Your task to perform on an android device: What is the news today? Image 0: 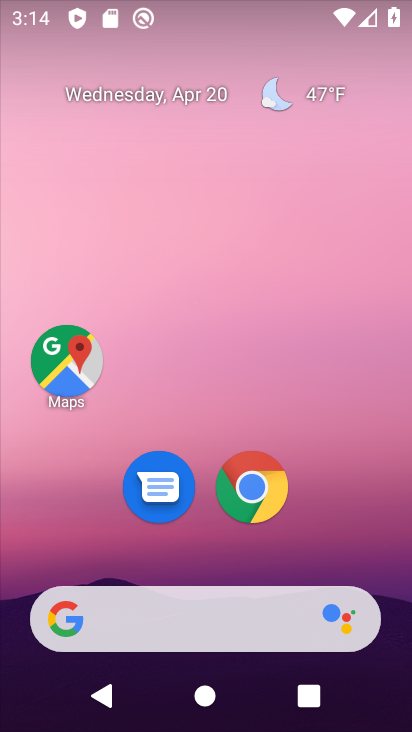
Step 0: drag from (389, 573) to (364, 56)
Your task to perform on an android device: What is the news today? Image 1: 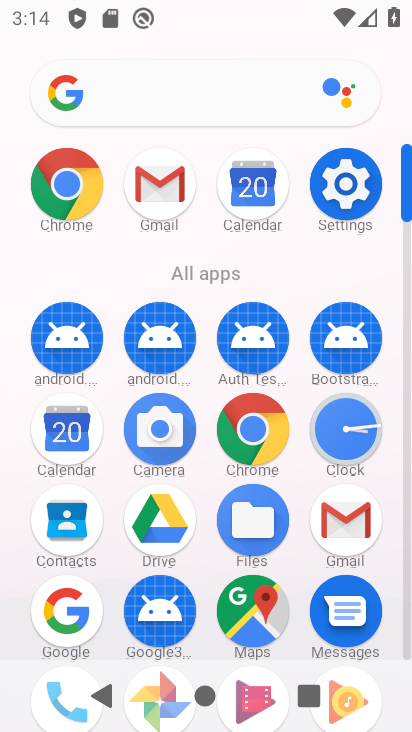
Step 1: click (261, 433)
Your task to perform on an android device: What is the news today? Image 2: 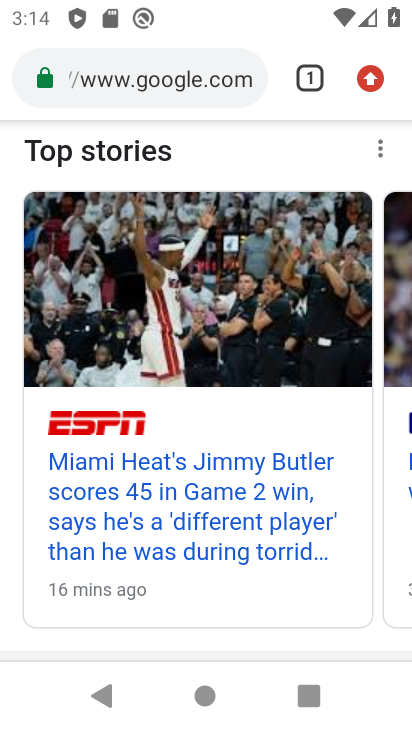
Step 2: click (191, 80)
Your task to perform on an android device: What is the news today? Image 3: 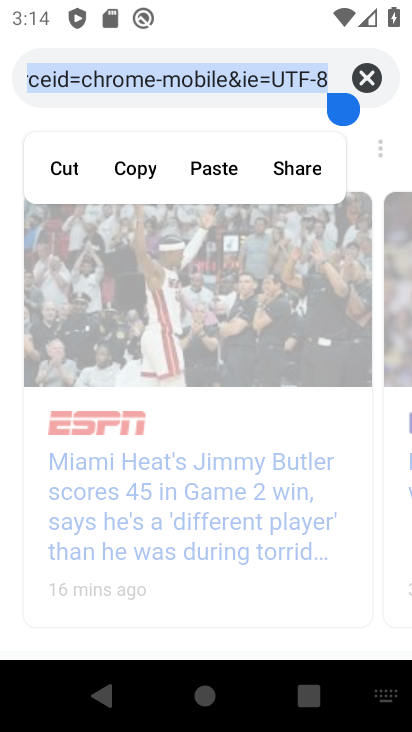
Step 3: click (365, 72)
Your task to perform on an android device: What is the news today? Image 4: 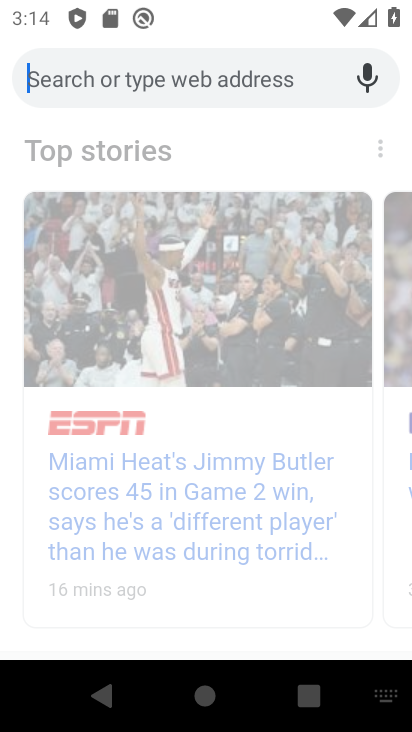
Step 4: type "news today"
Your task to perform on an android device: What is the news today? Image 5: 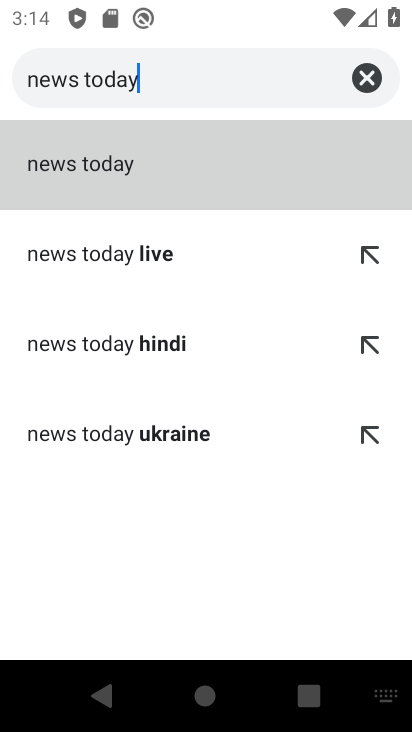
Step 5: click (67, 165)
Your task to perform on an android device: What is the news today? Image 6: 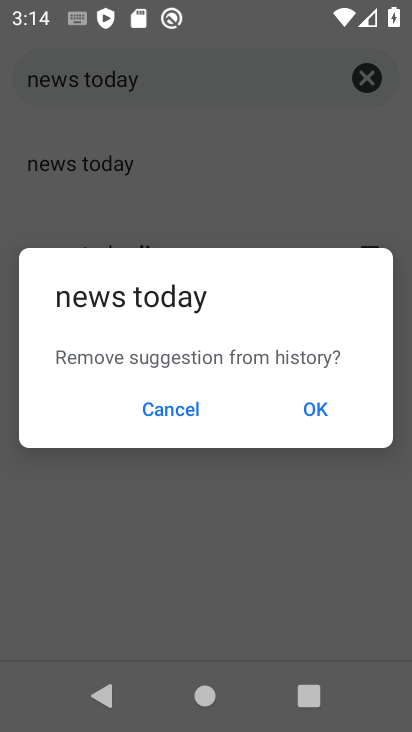
Step 6: click (315, 409)
Your task to perform on an android device: What is the news today? Image 7: 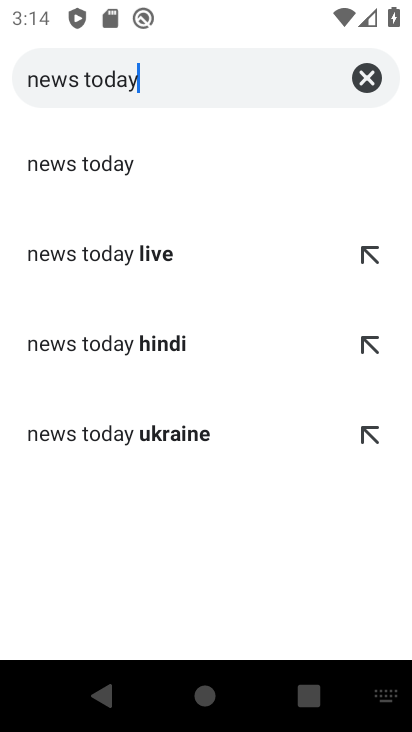
Step 7: click (98, 162)
Your task to perform on an android device: What is the news today? Image 8: 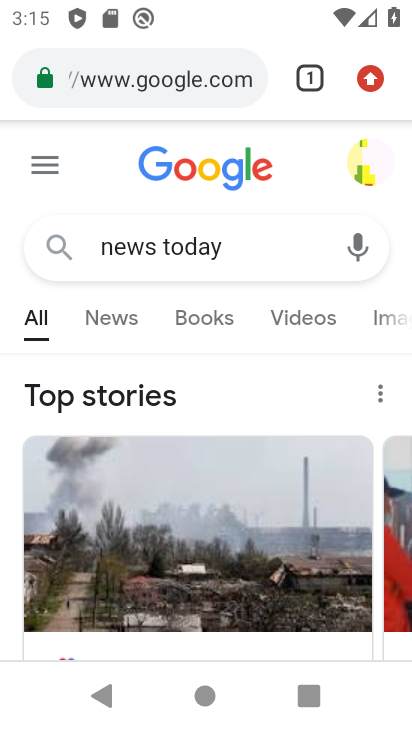
Step 8: drag from (225, 543) to (333, 194)
Your task to perform on an android device: What is the news today? Image 9: 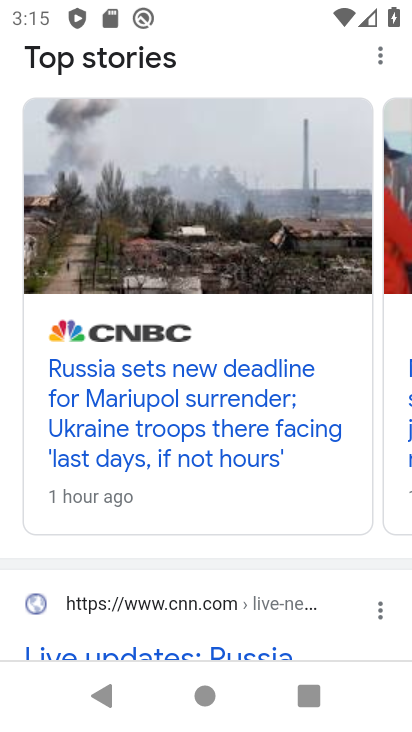
Step 9: drag from (298, 630) to (304, 363)
Your task to perform on an android device: What is the news today? Image 10: 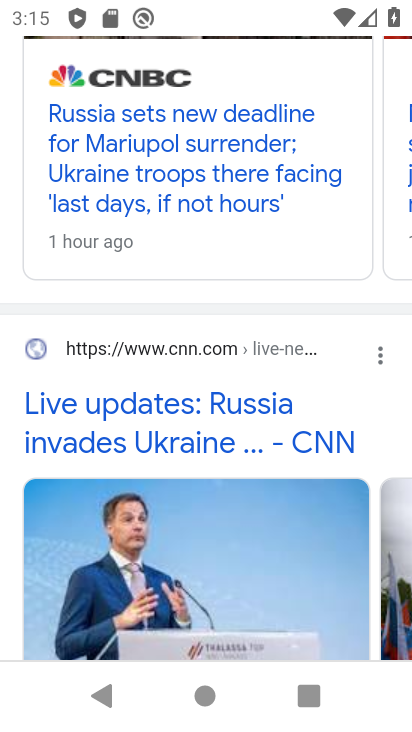
Step 10: click (212, 423)
Your task to perform on an android device: What is the news today? Image 11: 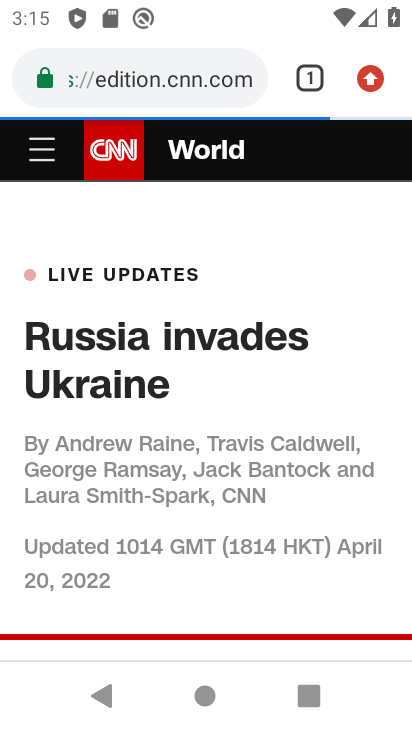
Step 11: task complete